Your task to perform on an android device: Open Chrome and go to the settings page Image 0: 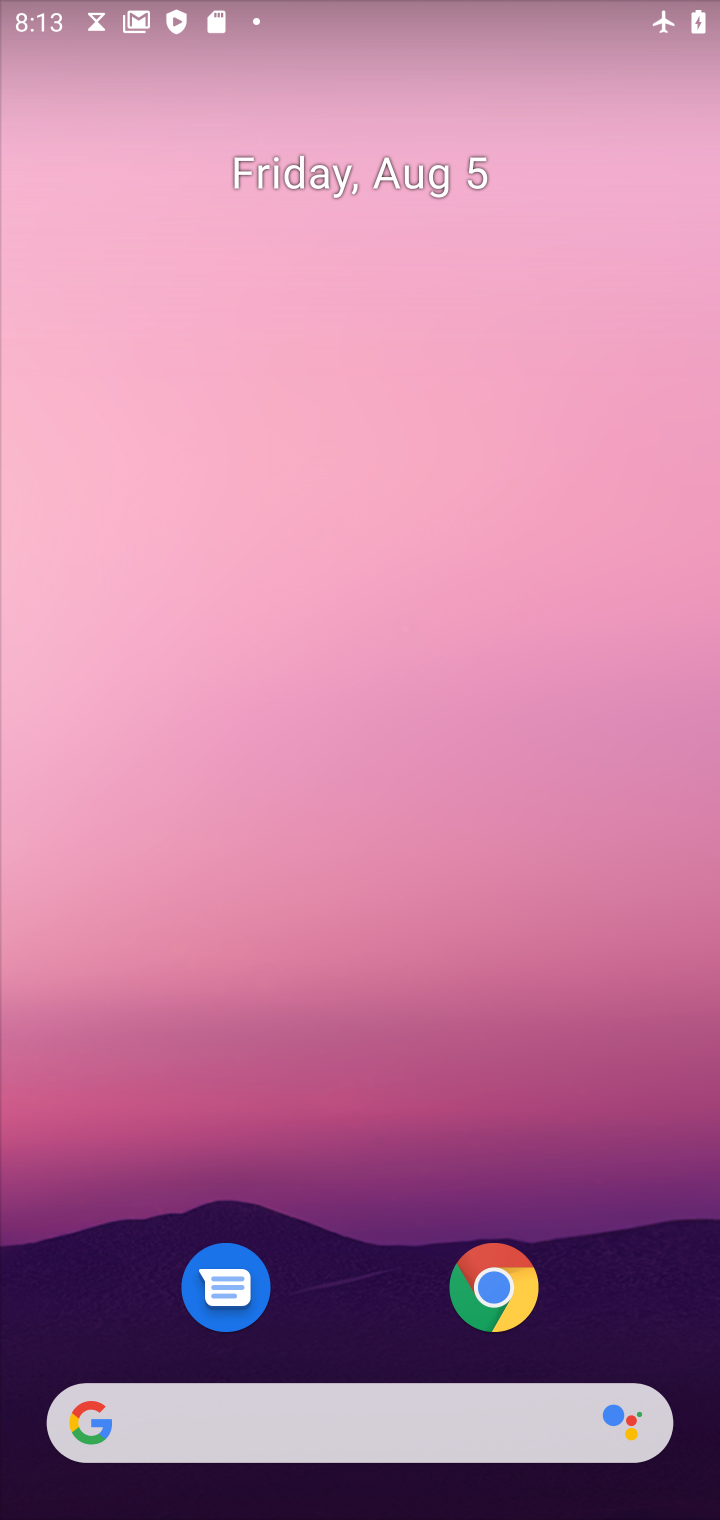
Step 0: click (490, 1305)
Your task to perform on an android device: Open Chrome and go to the settings page Image 1: 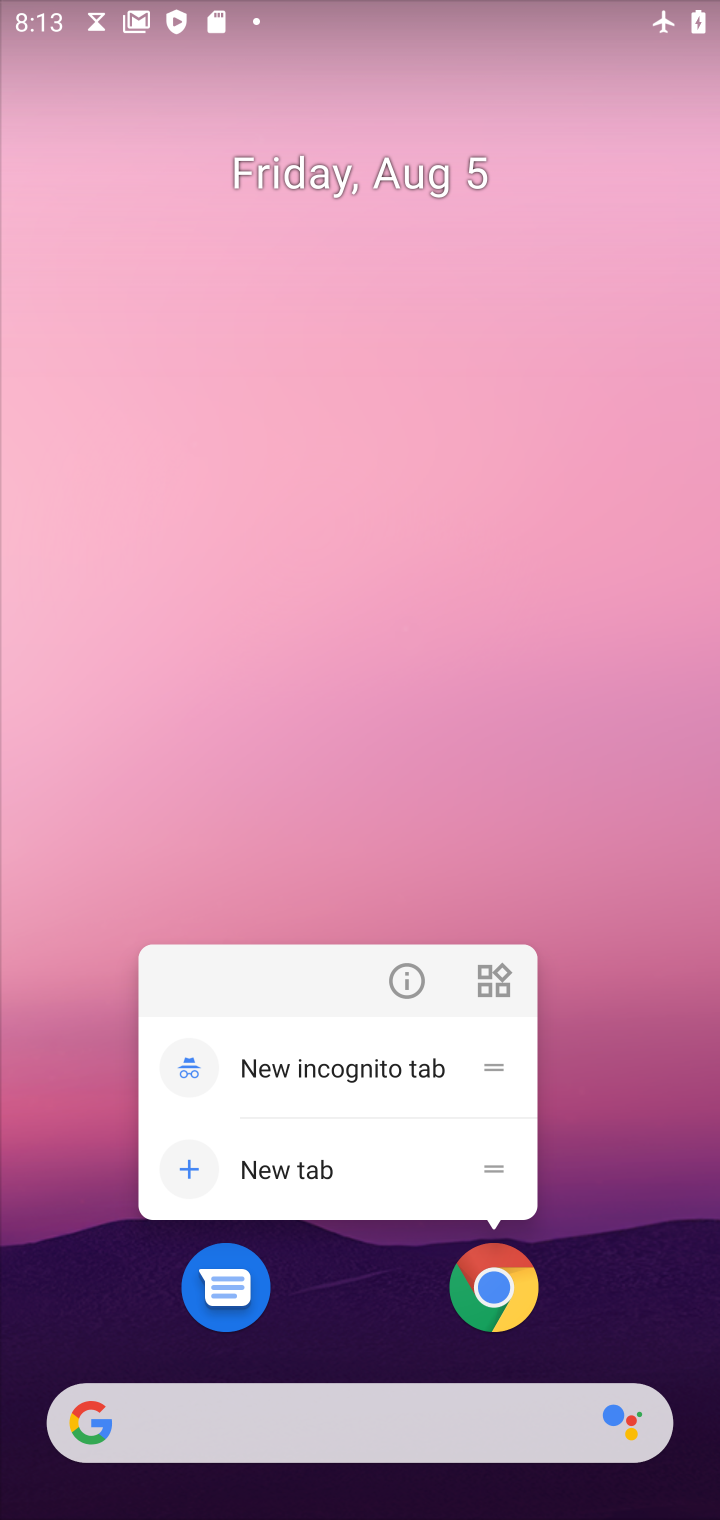
Step 1: click (482, 1293)
Your task to perform on an android device: Open Chrome and go to the settings page Image 2: 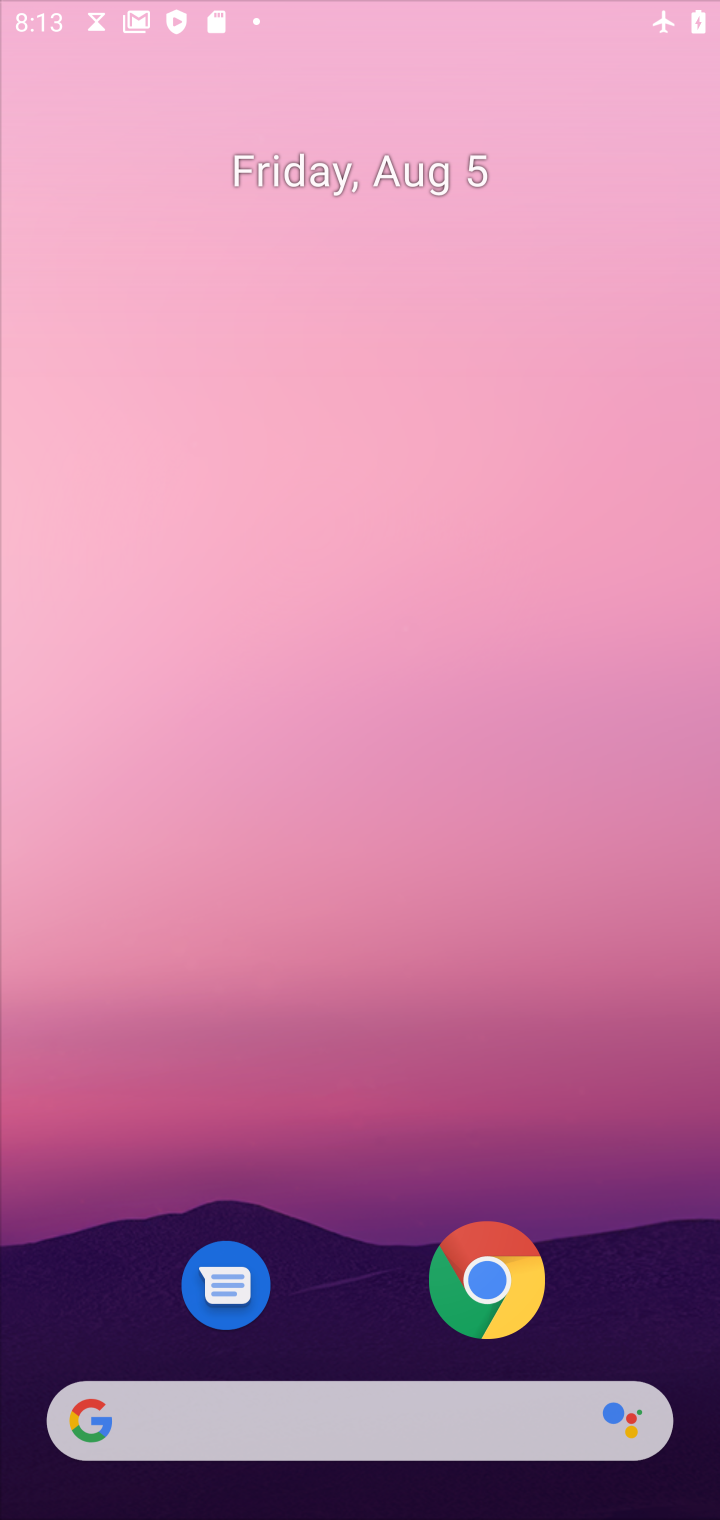
Step 2: click (482, 1295)
Your task to perform on an android device: Open Chrome and go to the settings page Image 3: 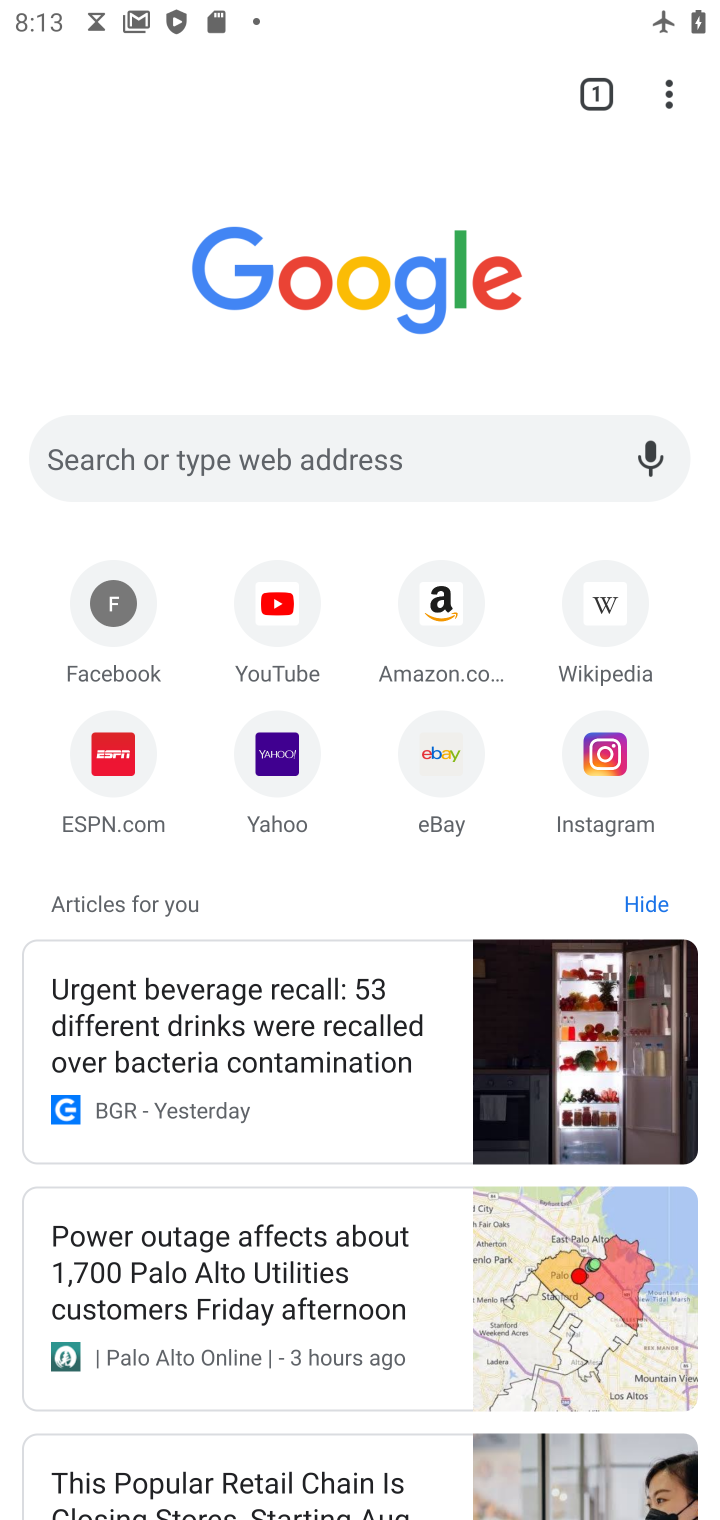
Step 3: click (668, 104)
Your task to perform on an android device: Open Chrome and go to the settings page Image 4: 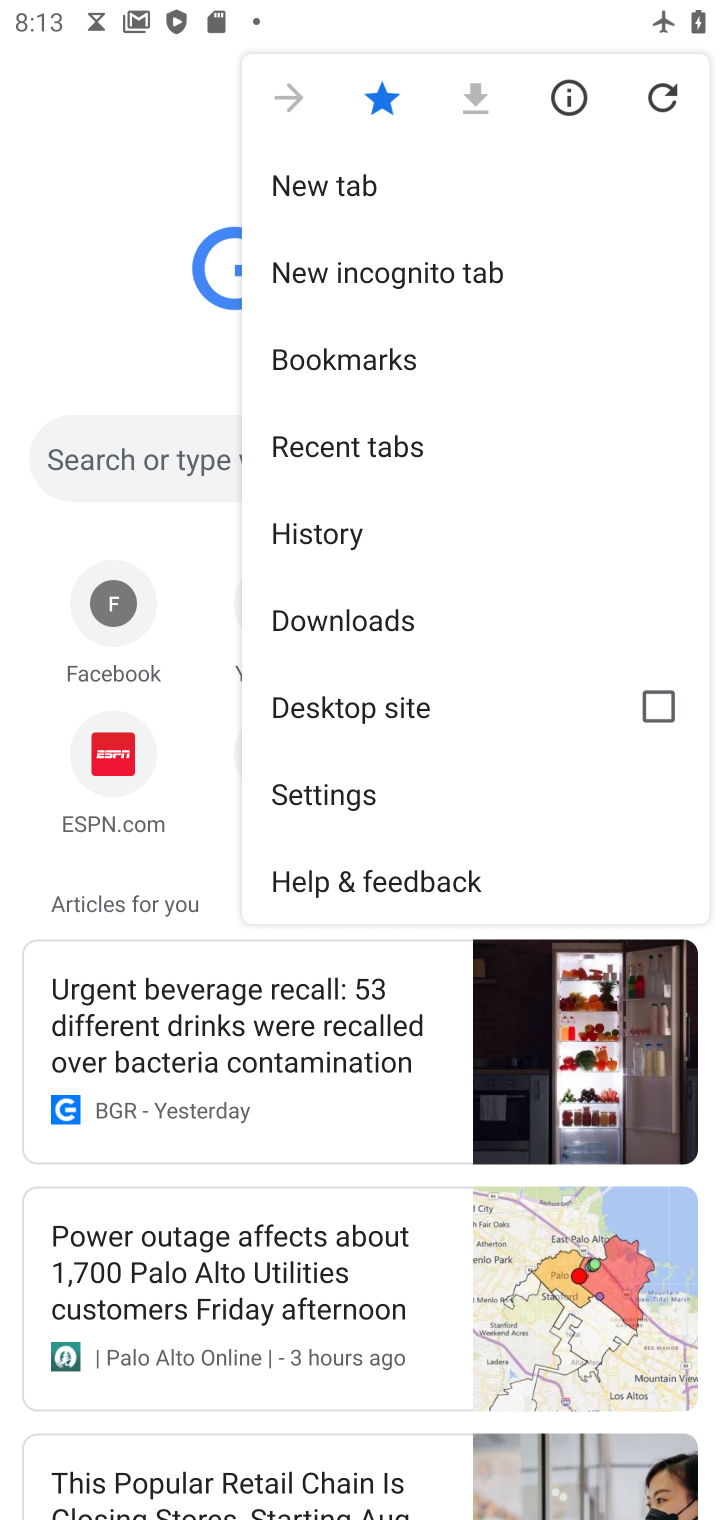
Step 4: click (328, 793)
Your task to perform on an android device: Open Chrome and go to the settings page Image 5: 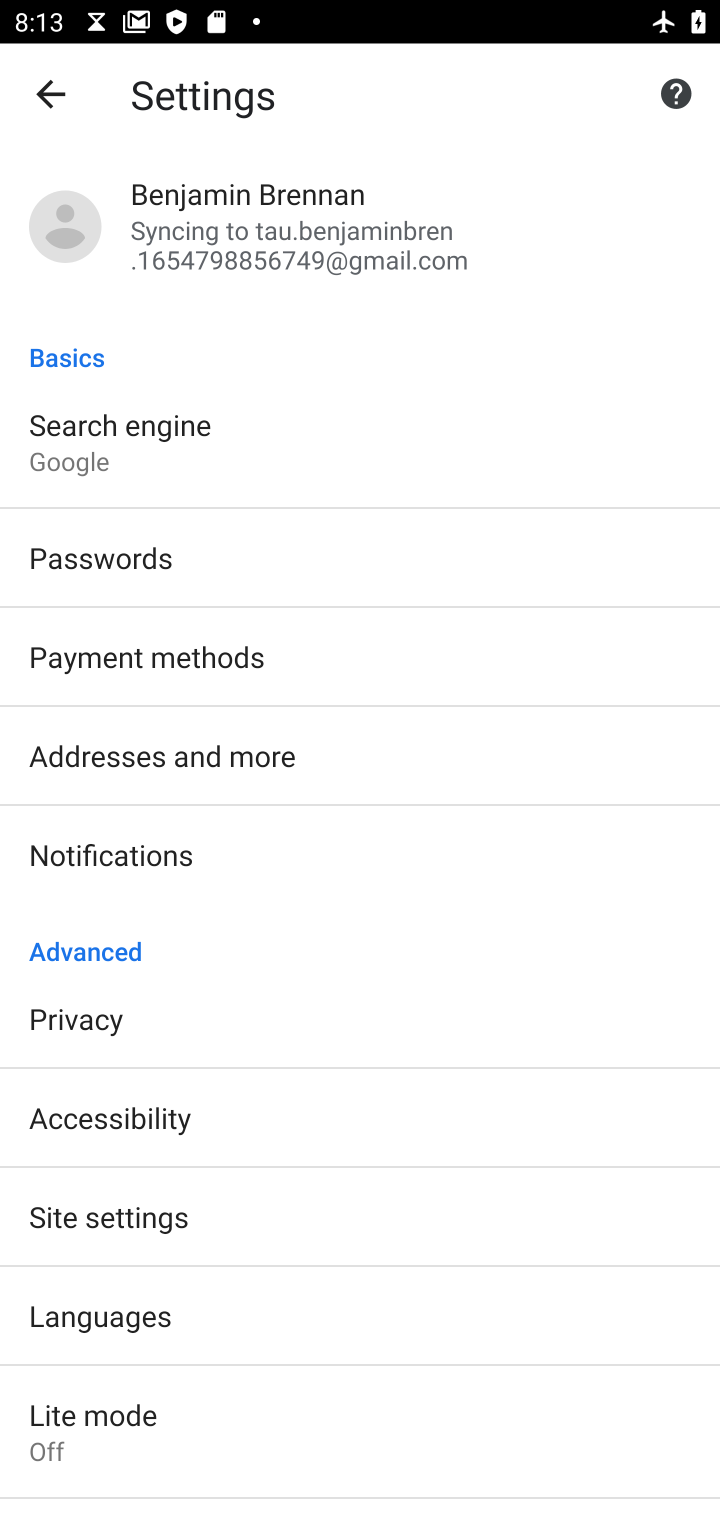
Step 5: task complete